Your task to perform on an android device: Search for hotels in Mexico city Image 0: 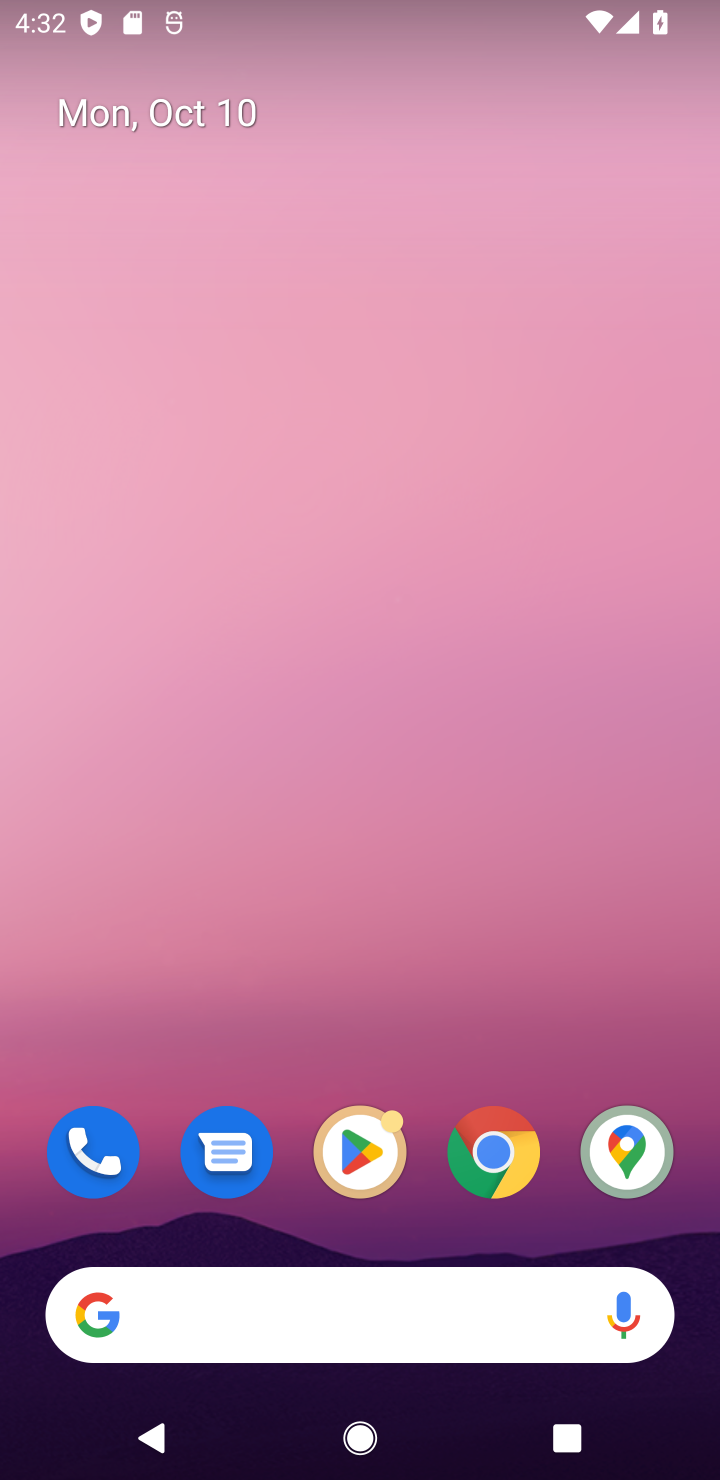
Step 0: click (494, 1154)
Your task to perform on an android device: Search for hotels in Mexico city Image 1: 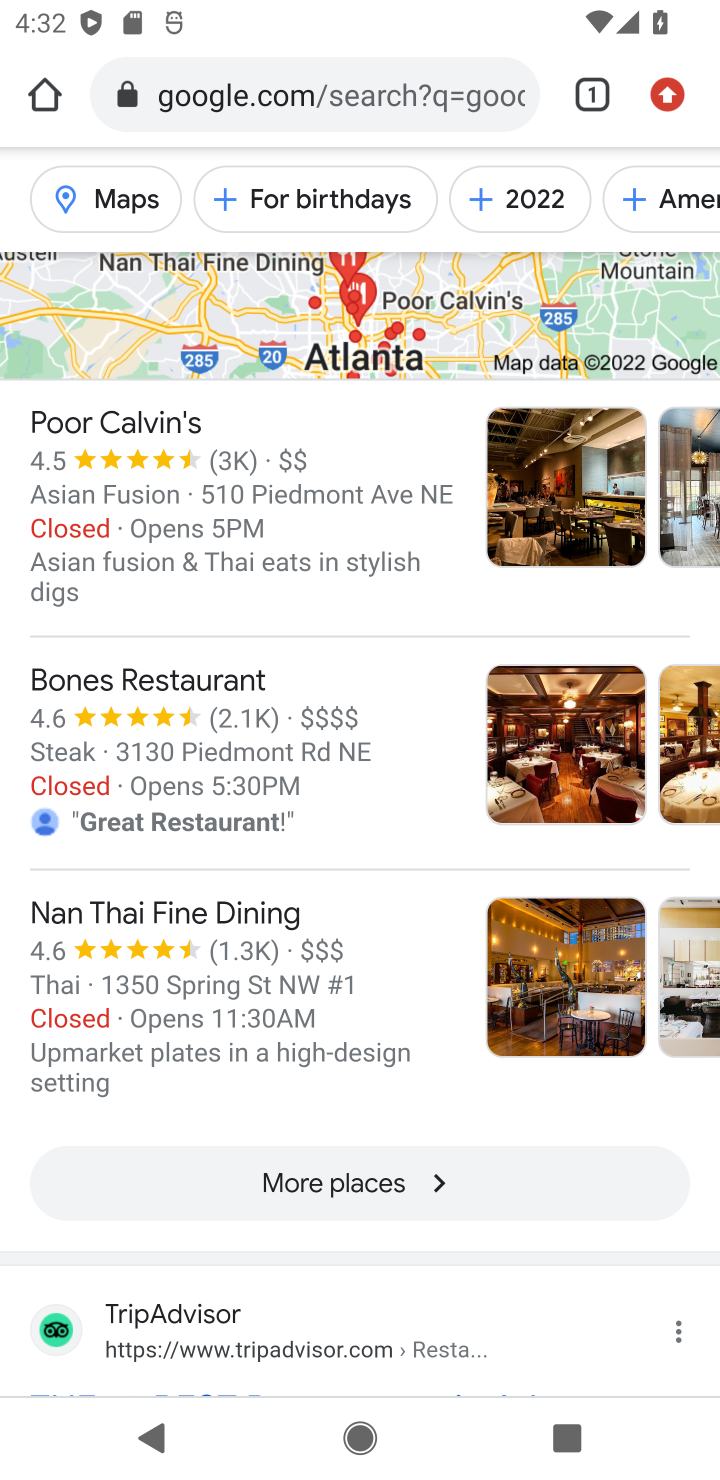
Step 1: click (448, 107)
Your task to perform on an android device: Search for hotels in Mexico city Image 2: 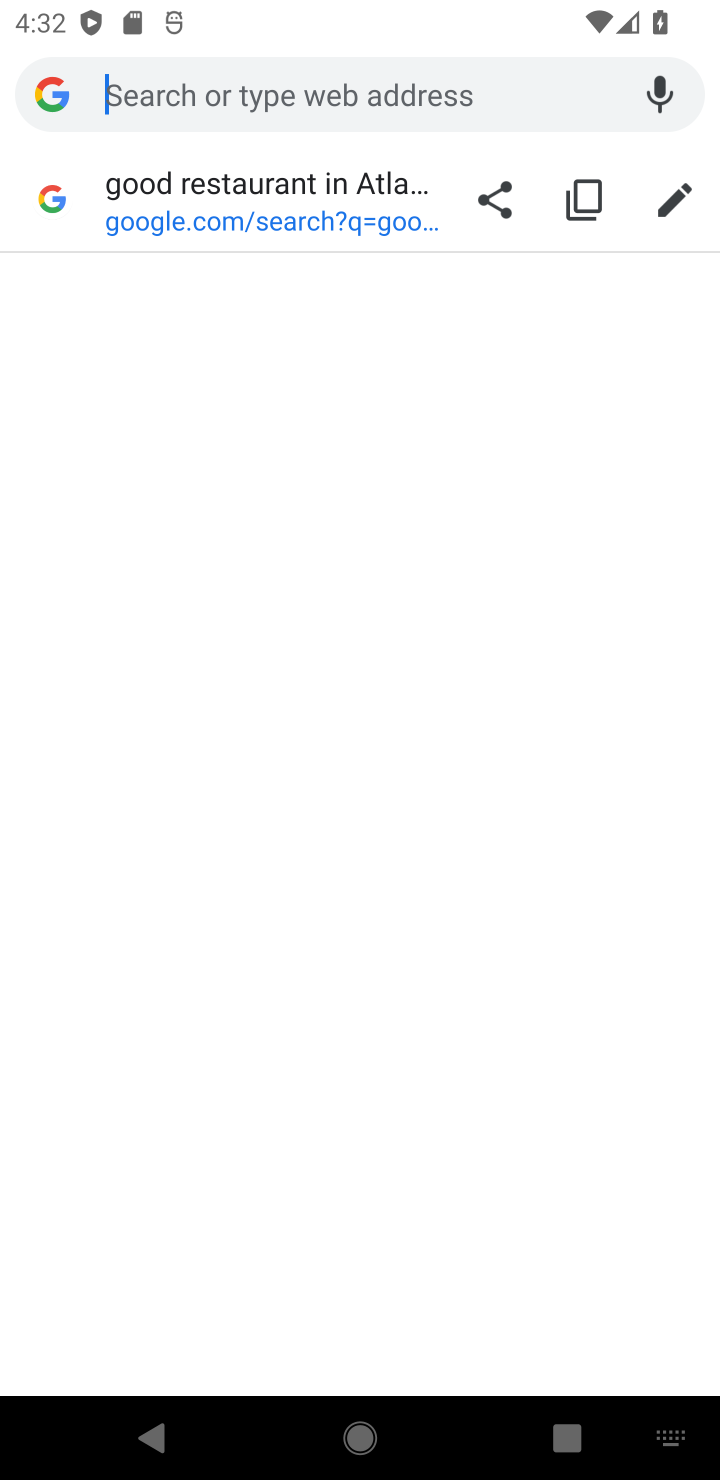
Step 2: type "Hotels in Mexico city"
Your task to perform on an android device: Search for hotels in Mexico city Image 3: 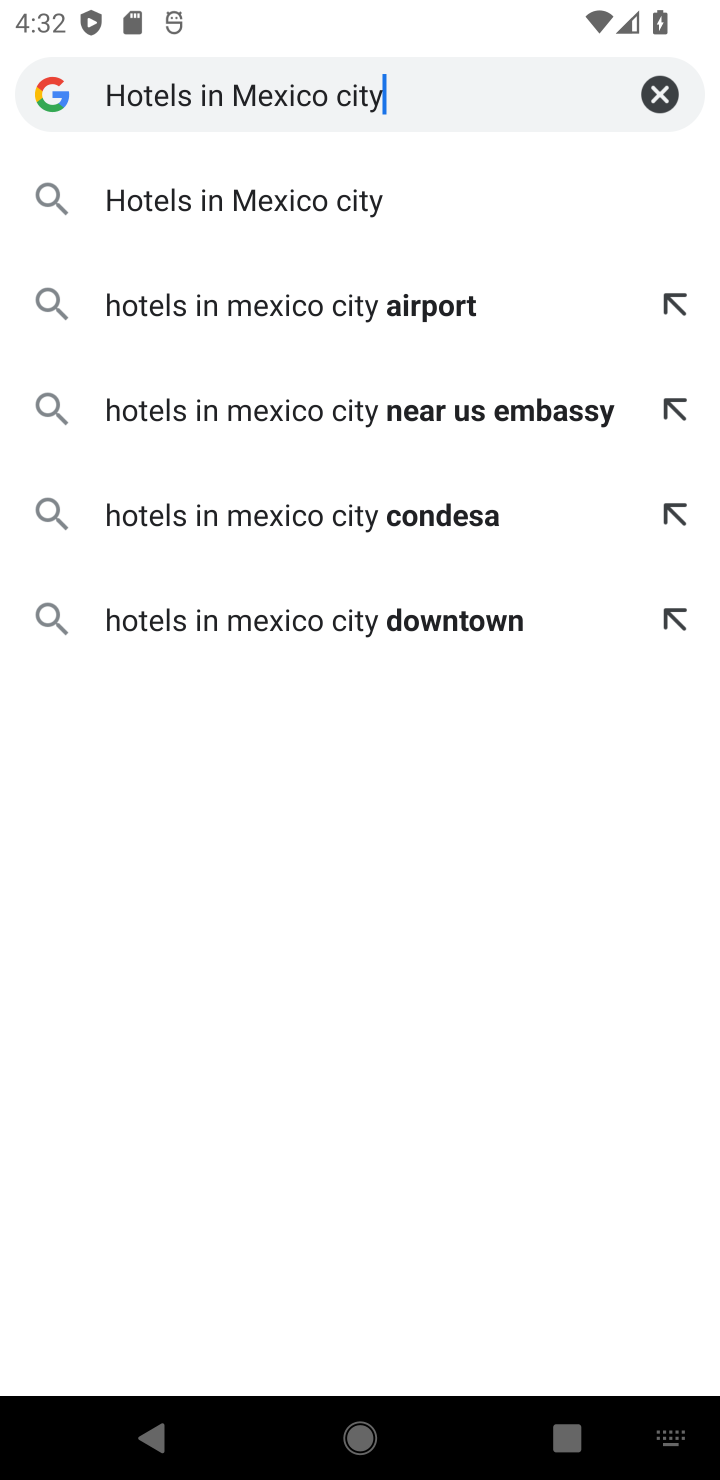
Step 3: click (313, 220)
Your task to perform on an android device: Search for hotels in Mexico city Image 4: 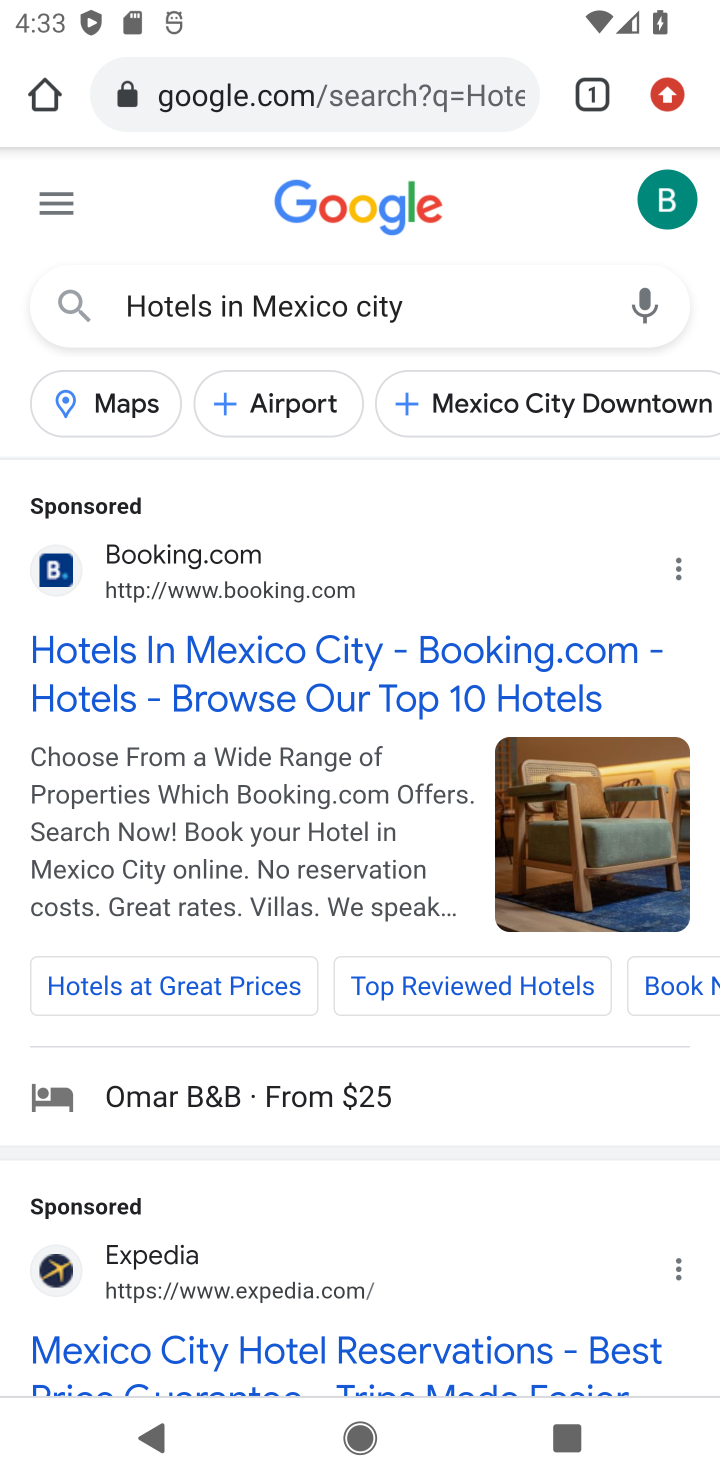
Step 4: task complete